Your task to perform on an android device: When is my next meeting? Image 0: 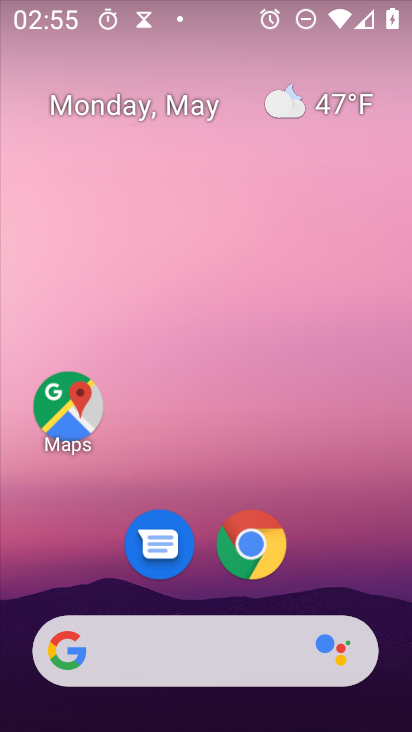
Step 0: drag from (328, 544) to (309, 13)
Your task to perform on an android device: When is my next meeting? Image 1: 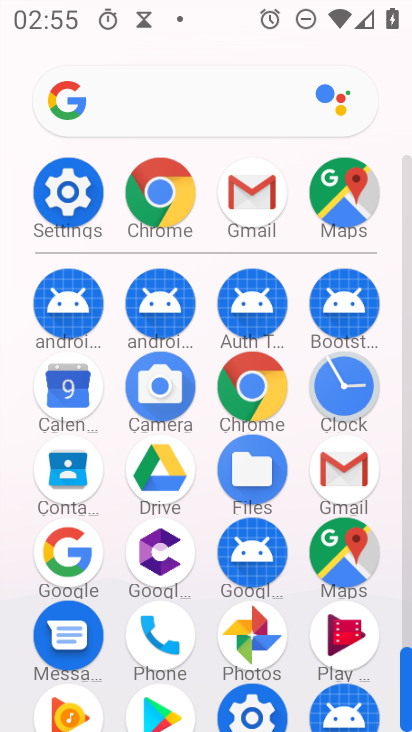
Step 1: click (90, 401)
Your task to perform on an android device: When is my next meeting? Image 2: 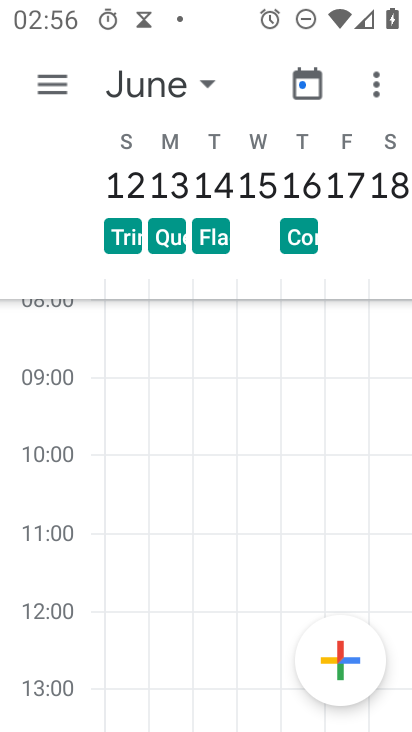
Step 2: click (210, 84)
Your task to perform on an android device: When is my next meeting? Image 3: 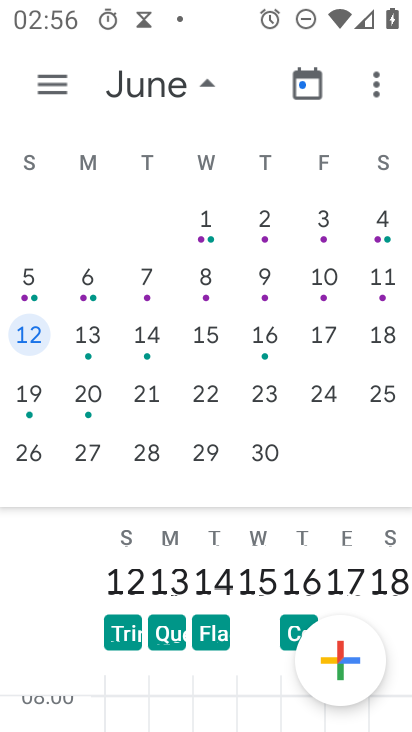
Step 3: task complete